Your task to perform on an android device: find snoozed emails in the gmail app Image 0: 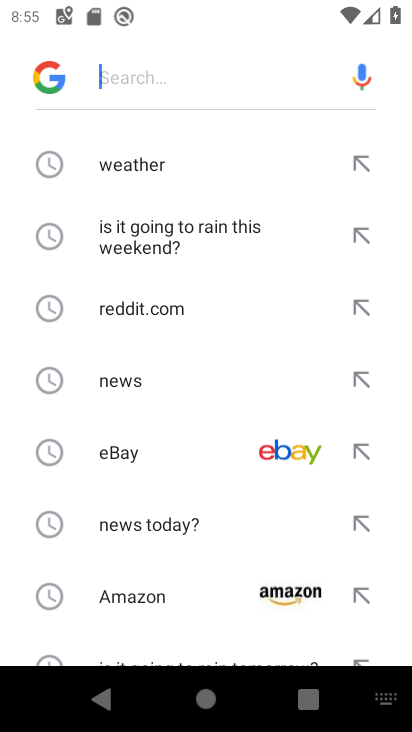
Step 0: press back button
Your task to perform on an android device: find snoozed emails in the gmail app Image 1: 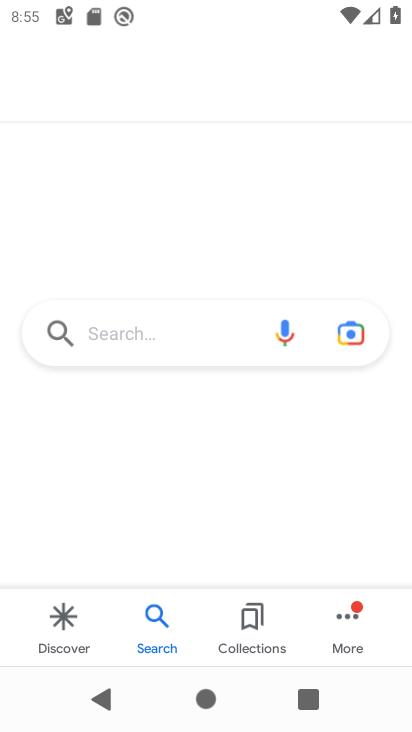
Step 1: press back button
Your task to perform on an android device: find snoozed emails in the gmail app Image 2: 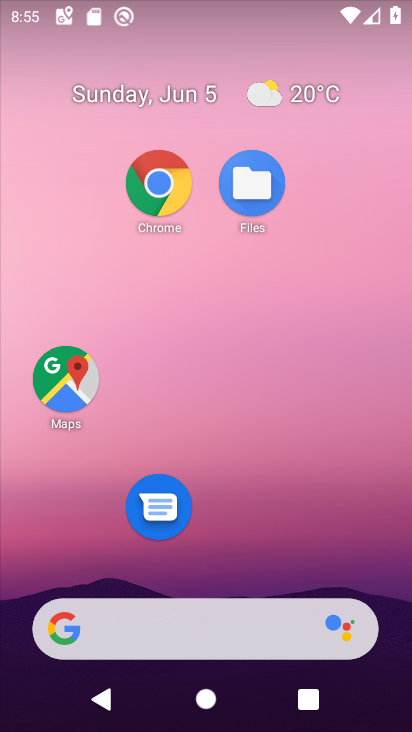
Step 2: drag from (273, 582) to (248, 380)
Your task to perform on an android device: find snoozed emails in the gmail app Image 3: 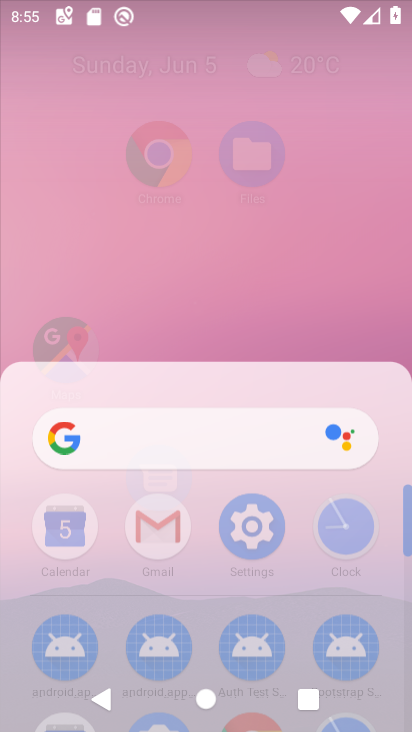
Step 3: click (248, 380)
Your task to perform on an android device: find snoozed emails in the gmail app Image 4: 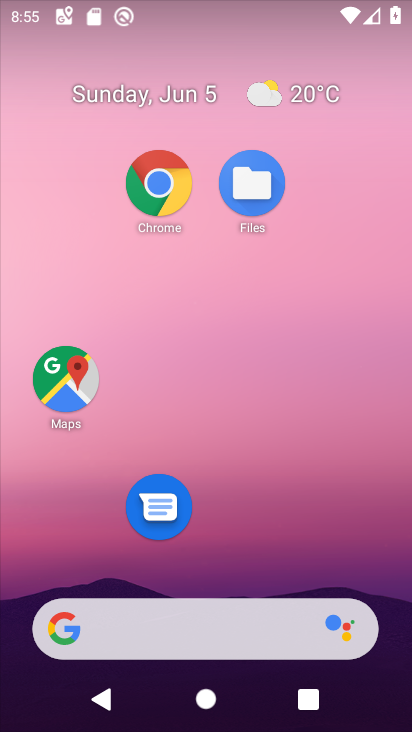
Step 4: drag from (226, 573) to (235, 178)
Your task to perform on an android device: find snoozed emails in the gmail app Image 5: 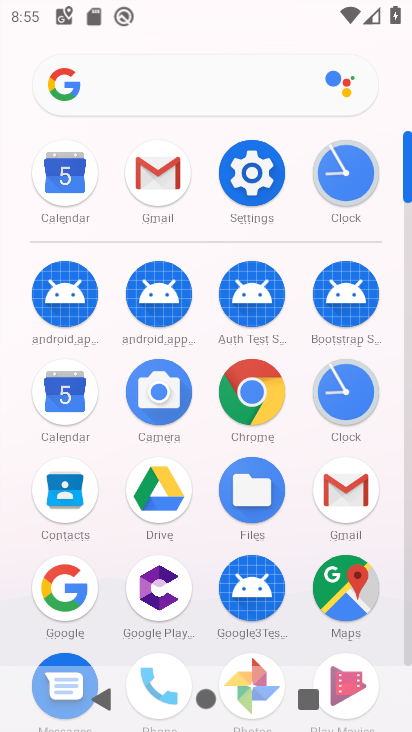
Step 5: click (349, 494)
Your task to perform on an android device: find snoozed emails in the gmail app Image 6: 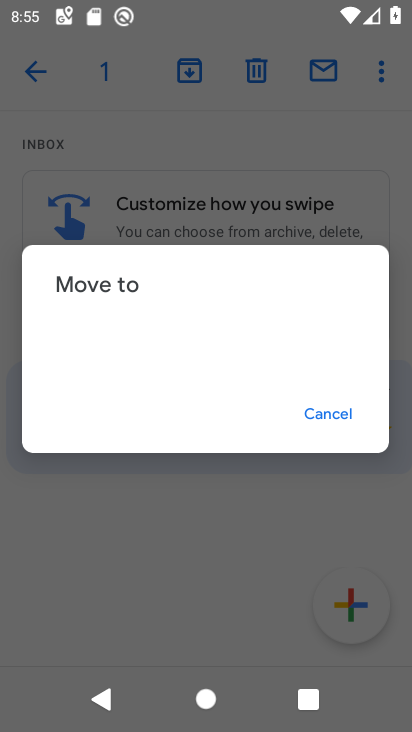
Step 6: click (321, 427)
Your task to perform on an android device: find snoozed emails in the gmail app Image 7: 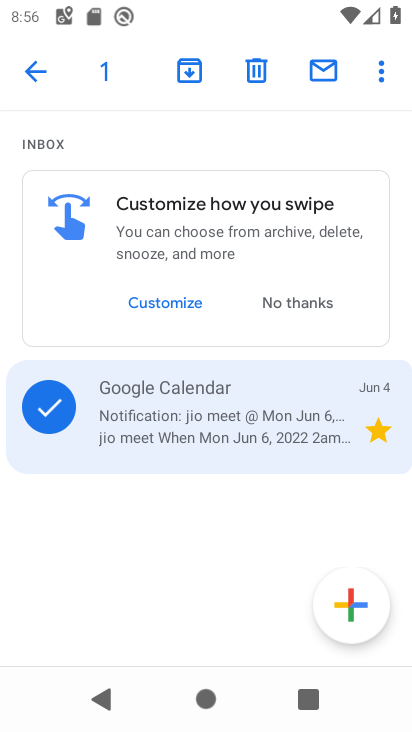
Step 7: click (29, 78)
Your task to perform on an android device: find snoozed emails in the gmail app Image 8: 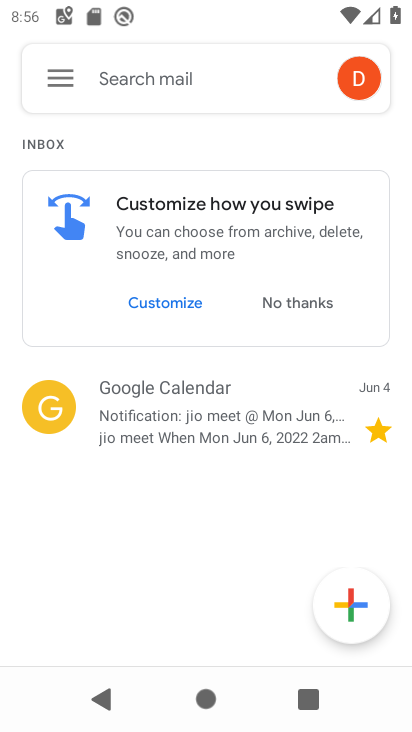
Step 8: click (70, 78)
Your task to perform on an android device: find snoozed emails in the gmail app Image 9: 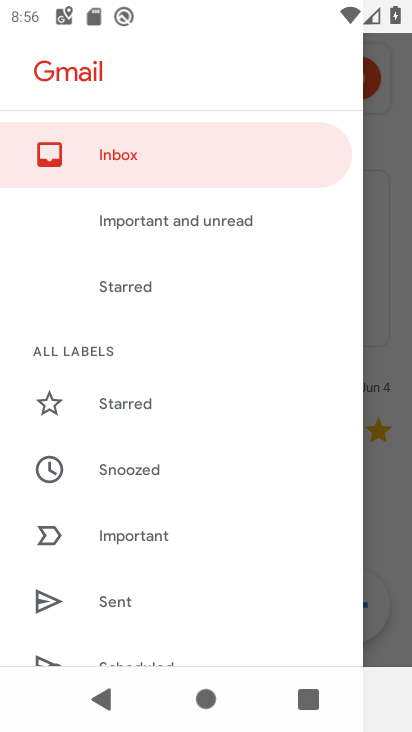
Step 9: click (112, 456)
Your task to perform on an android device: find snoozed emails in the gmail app Image 10: 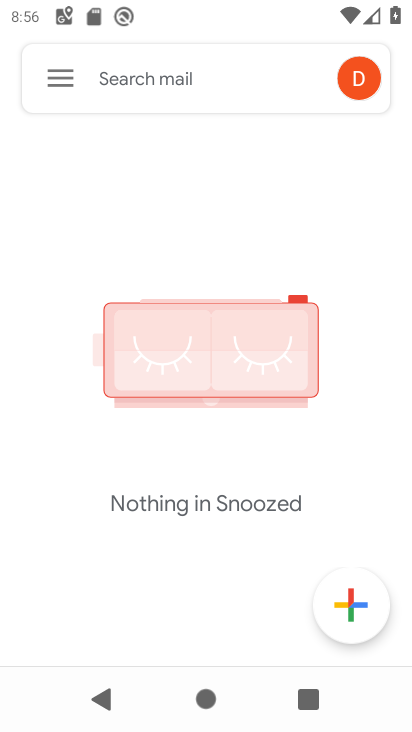
Step 10: task complete